Your task to perform on an android device: set default search engine in the chrome app Image 0: 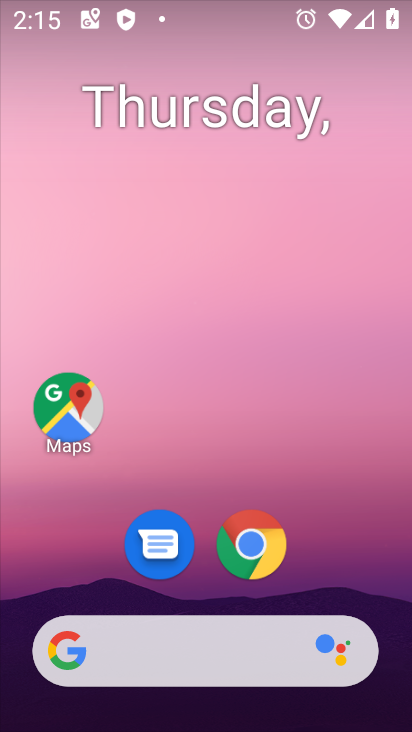
Step 0: click (272, 554)
Your task to perform on an android device: set default search engine in the chrome app Image 1: 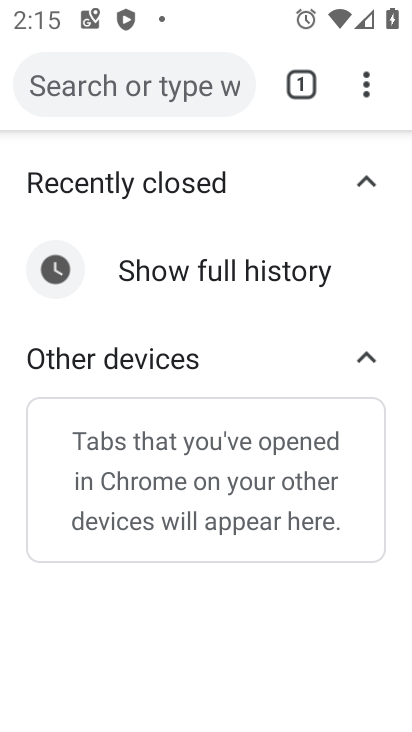
Step 1: click (383, 84)
Your task to perform on an android device: set default search engine in the chrome app Image 2: 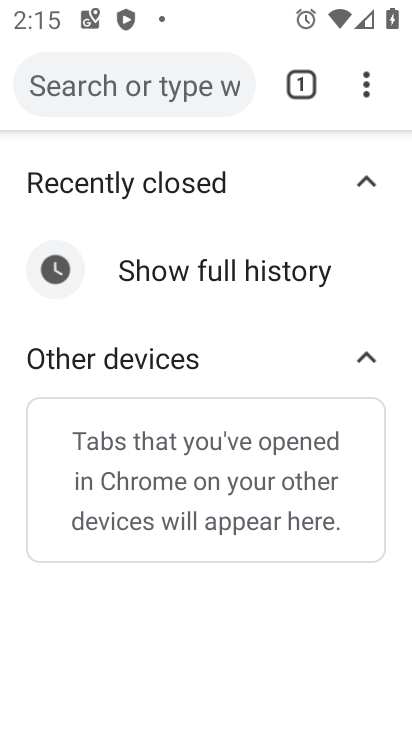
Step 2: click (352, 81)
Your task to perform on an android device: set default search engine in the chrome app Image 3: 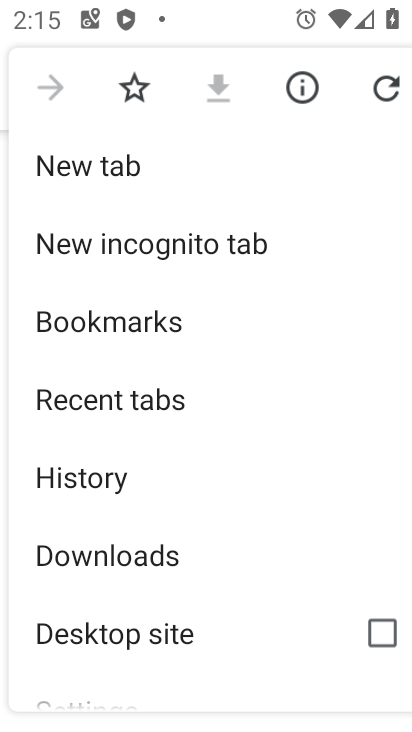
Step 3: drag from (133, 519) to (157, 195)
Your task to perform on an android device: set default search engine in the chrome app Image 4: 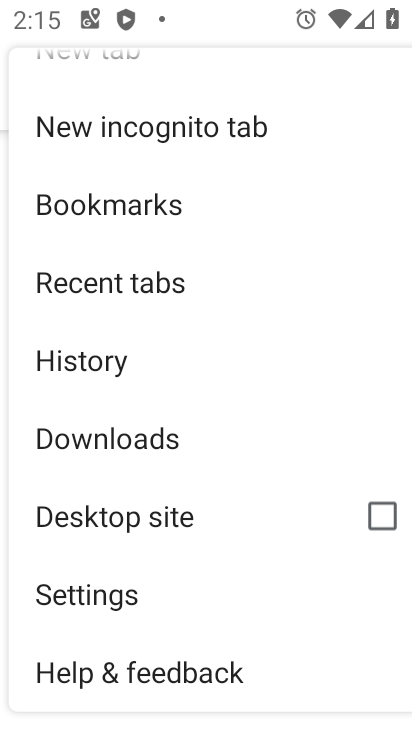
Step 4: click (106, 576)
Your task to perform on an android device: set default search engine in the chrome app Image 5: 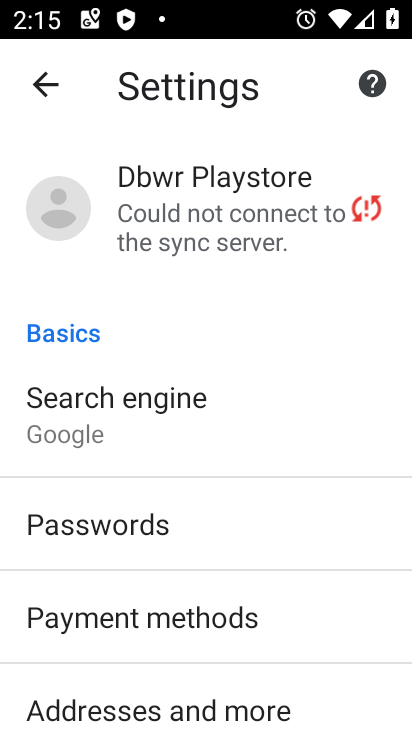
Step 5: click (104, 395)
Your task to perform on an android device: set default search engine in the chrome app Image 6: 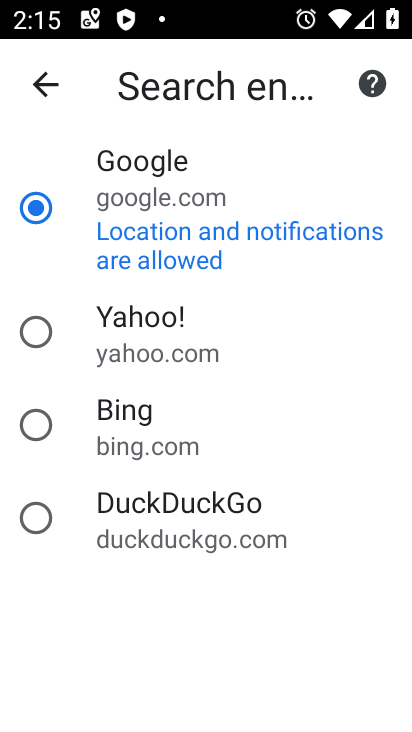
Step 6: task complete